Your task to perform on an android device: Open my contact list Image 0: 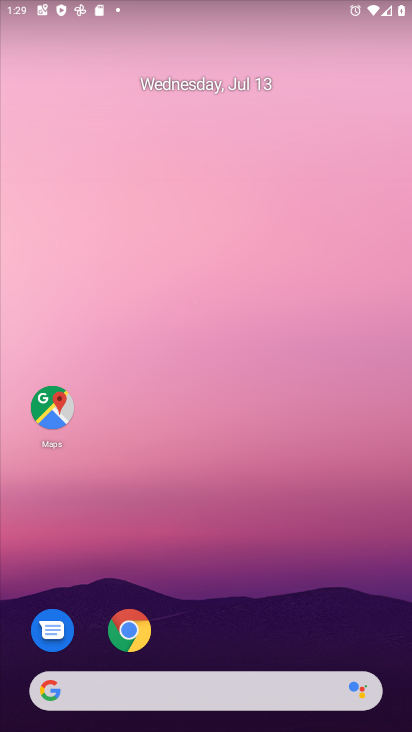
Step 0: drag from (394, 679) to (277, 34)
Your task to perform on an android device: Open my contact list Image 1: 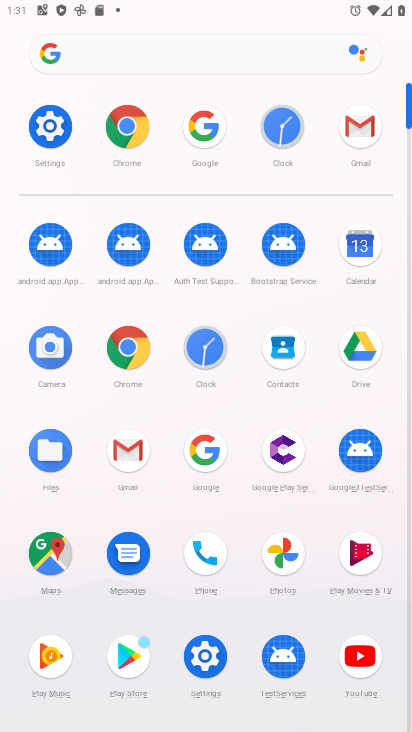
Step 1: click (289, 347)
Your task to perform on an android device: Open my contact list Image 2: 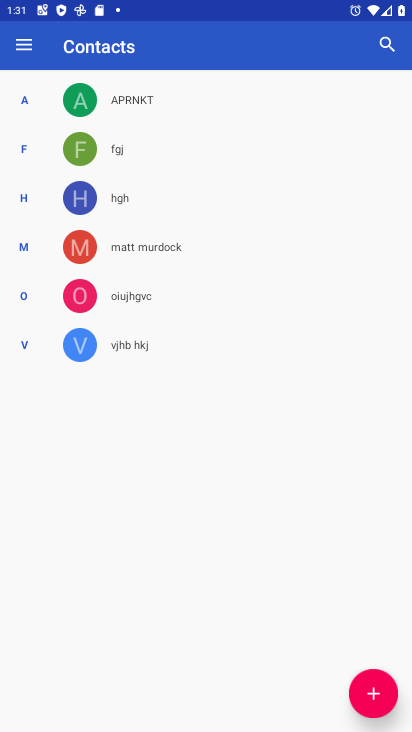
Step 2: task complete